Your task to perform on an android device: install app "Walmart Shopping & Grocery" Image 0: 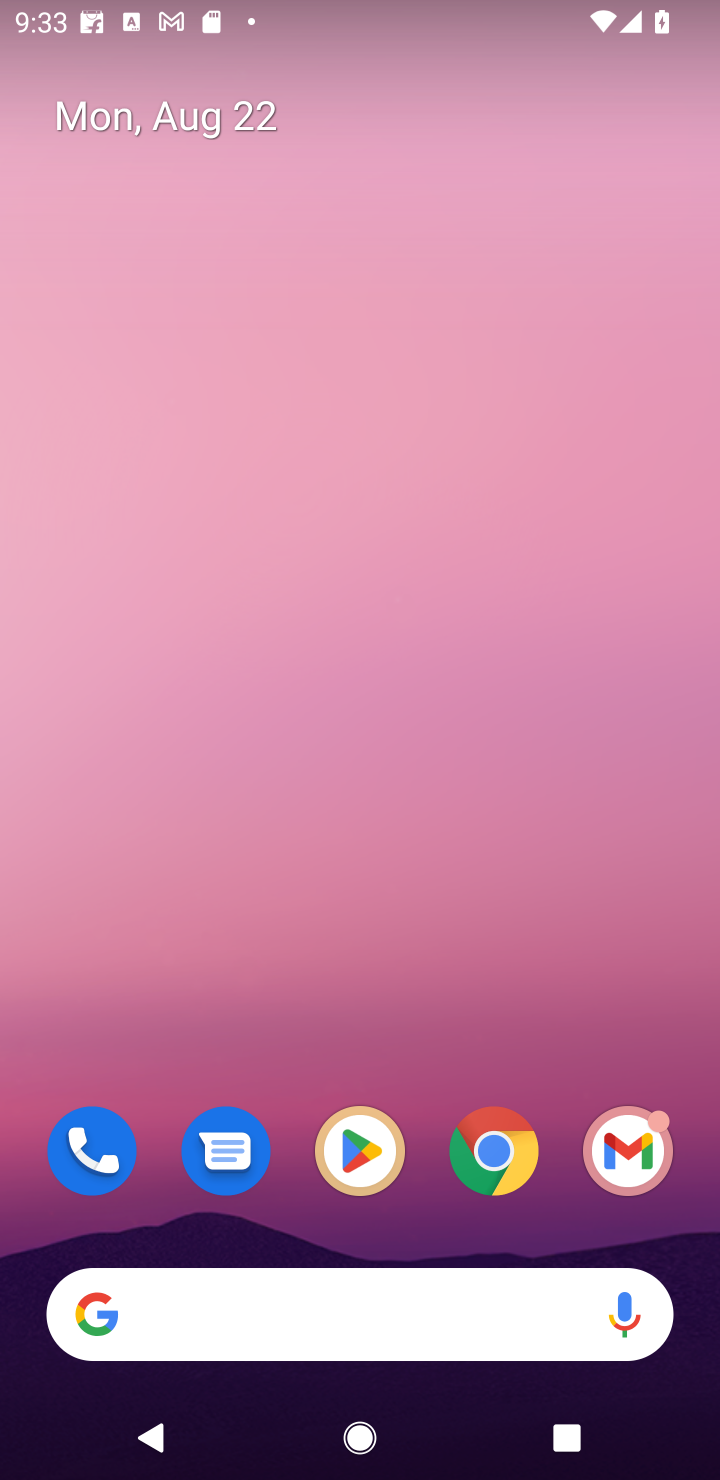
Step 0: press home button
Your task to perform on an android device: install app "Walmart Shopping & Grocery" Image 1: 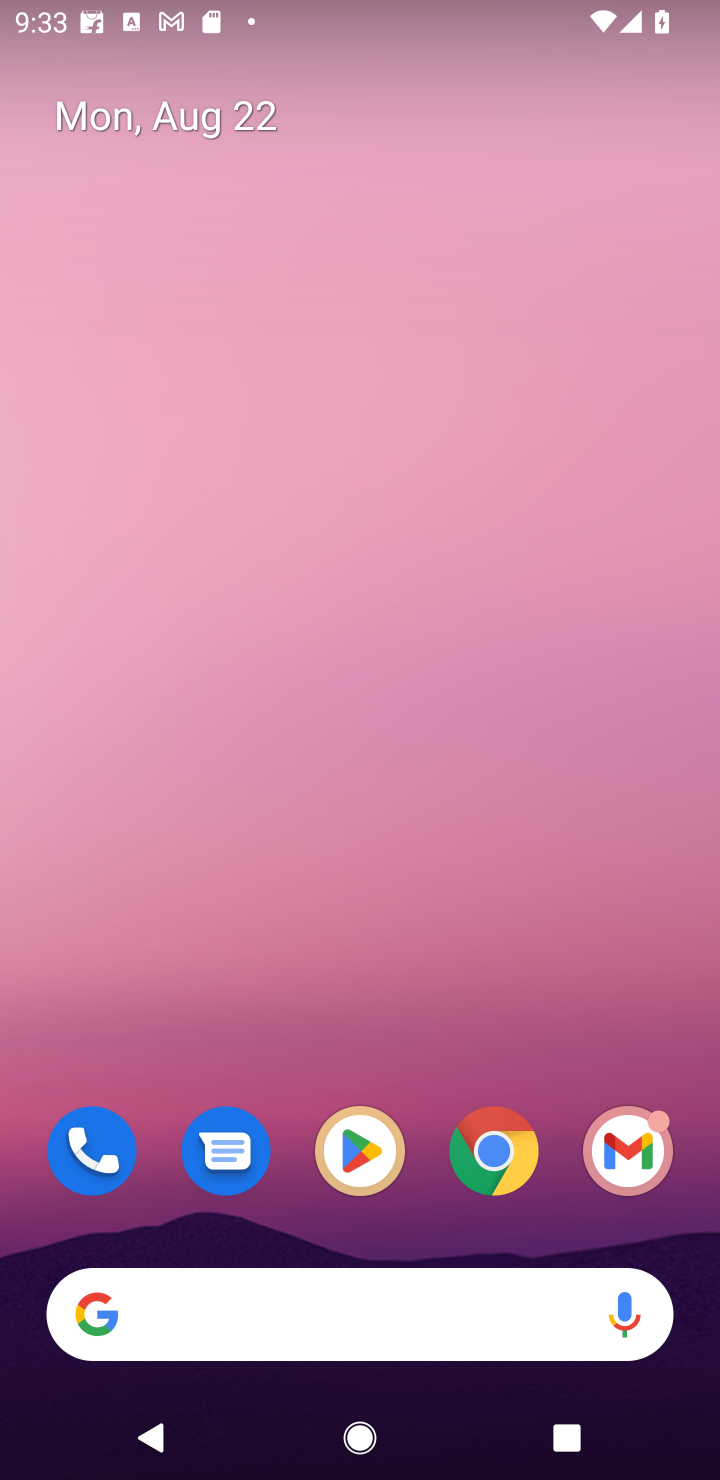
Step 1: click (350, 1160)
Your task to perform on an android device: install app "Walmart Shopping & Grocery" Image 2: 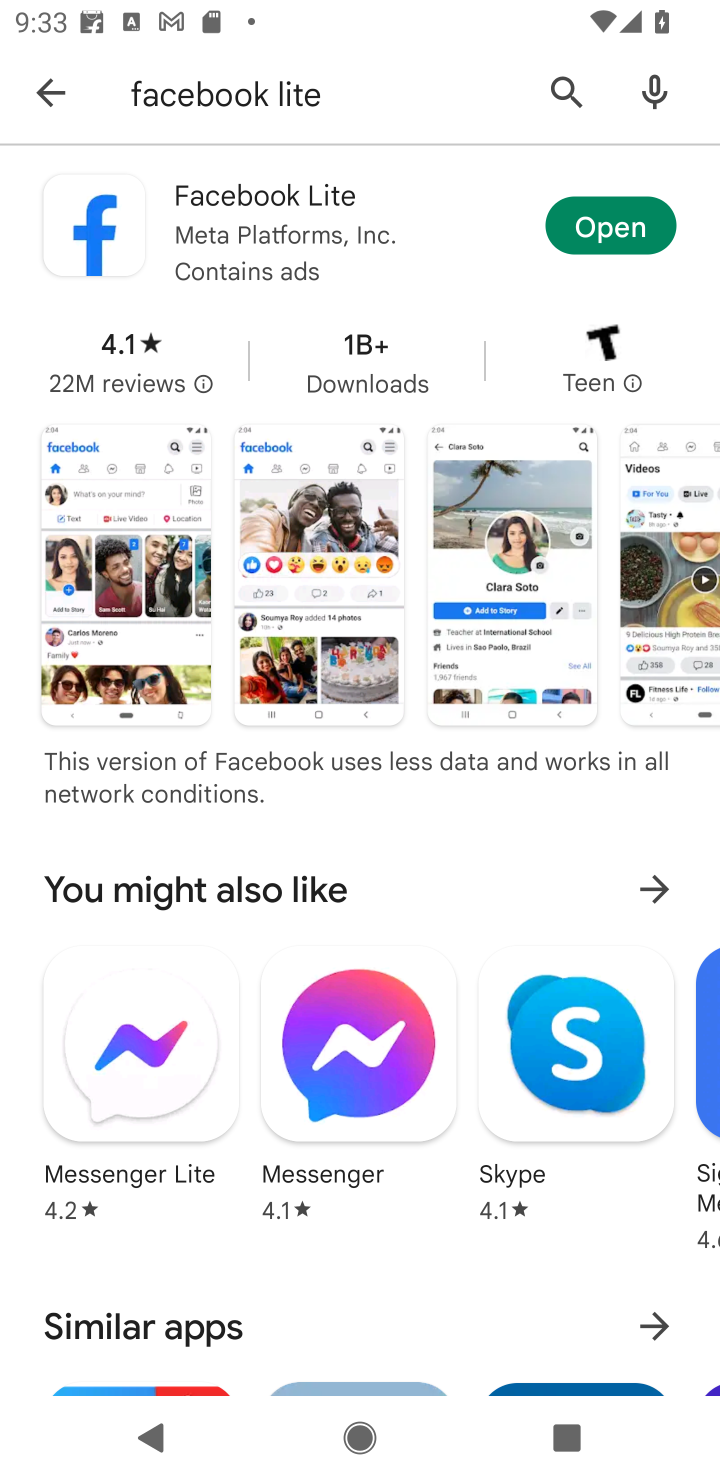
Step 2: click (558, 84)
Your task to perform on an android device: install app "Walmart Shopping & Grocery" Image 3: 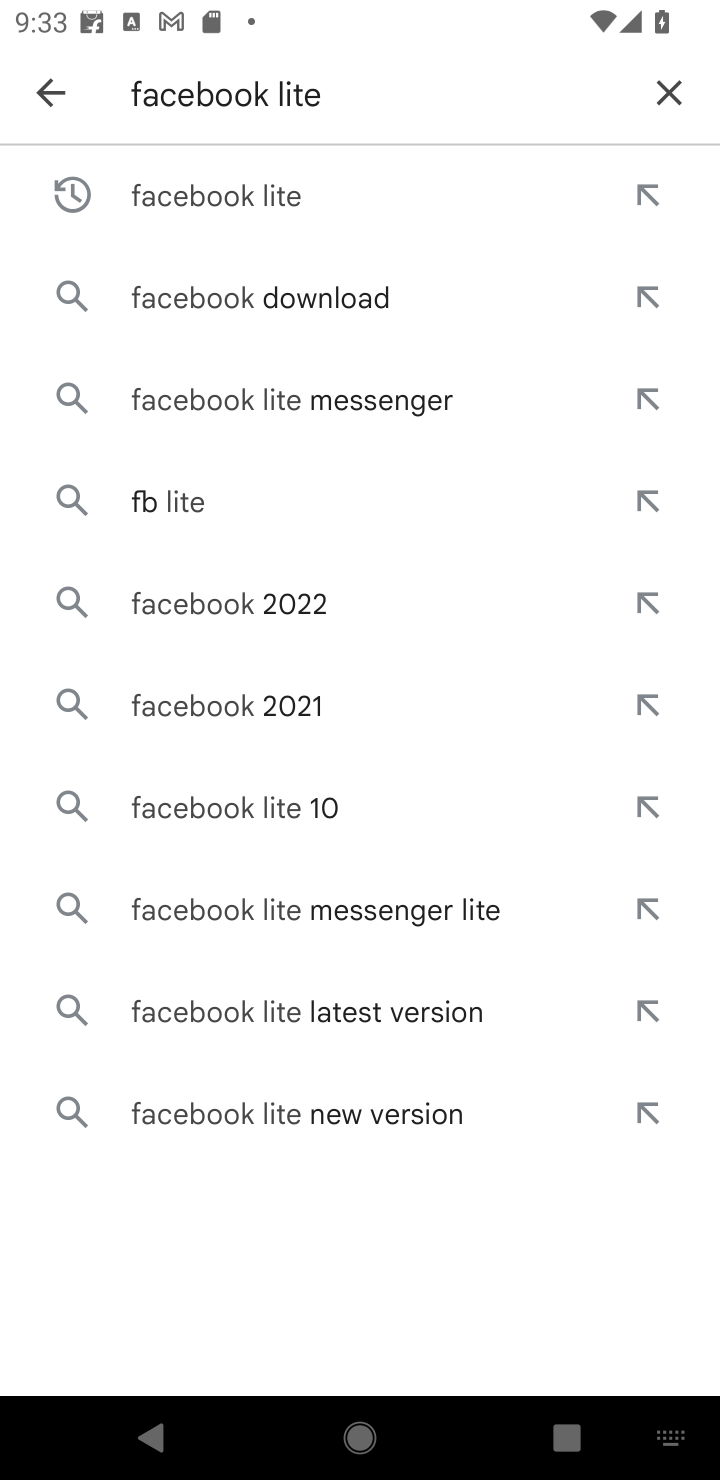
Step 3: click (667, 86)
Your task to perform on an android device: install app "Walmart Shopping & Grocery" Image 4: 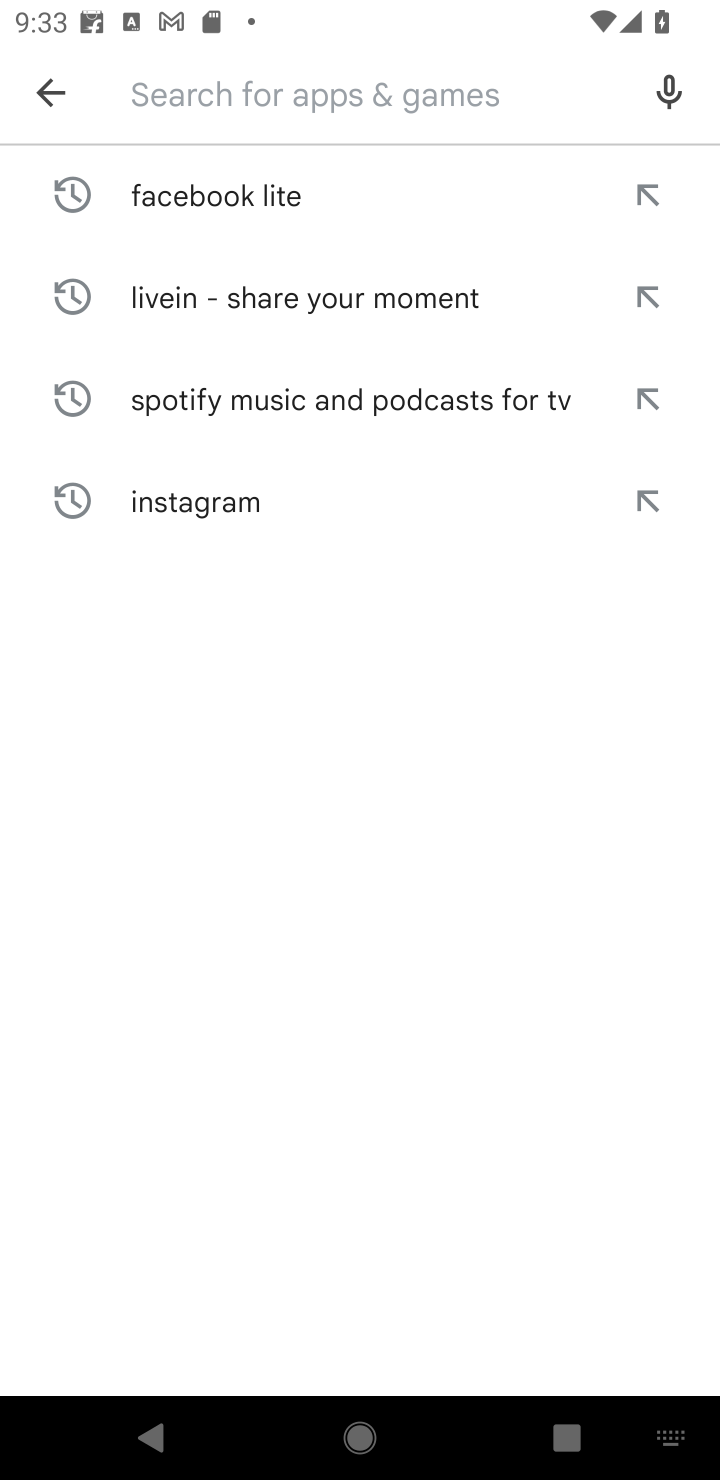
Step 4: type "Walmart Shopping & Grocery"
Your task to perform on an android device: install app "Walmart Shopping & Grocery" Image 5: 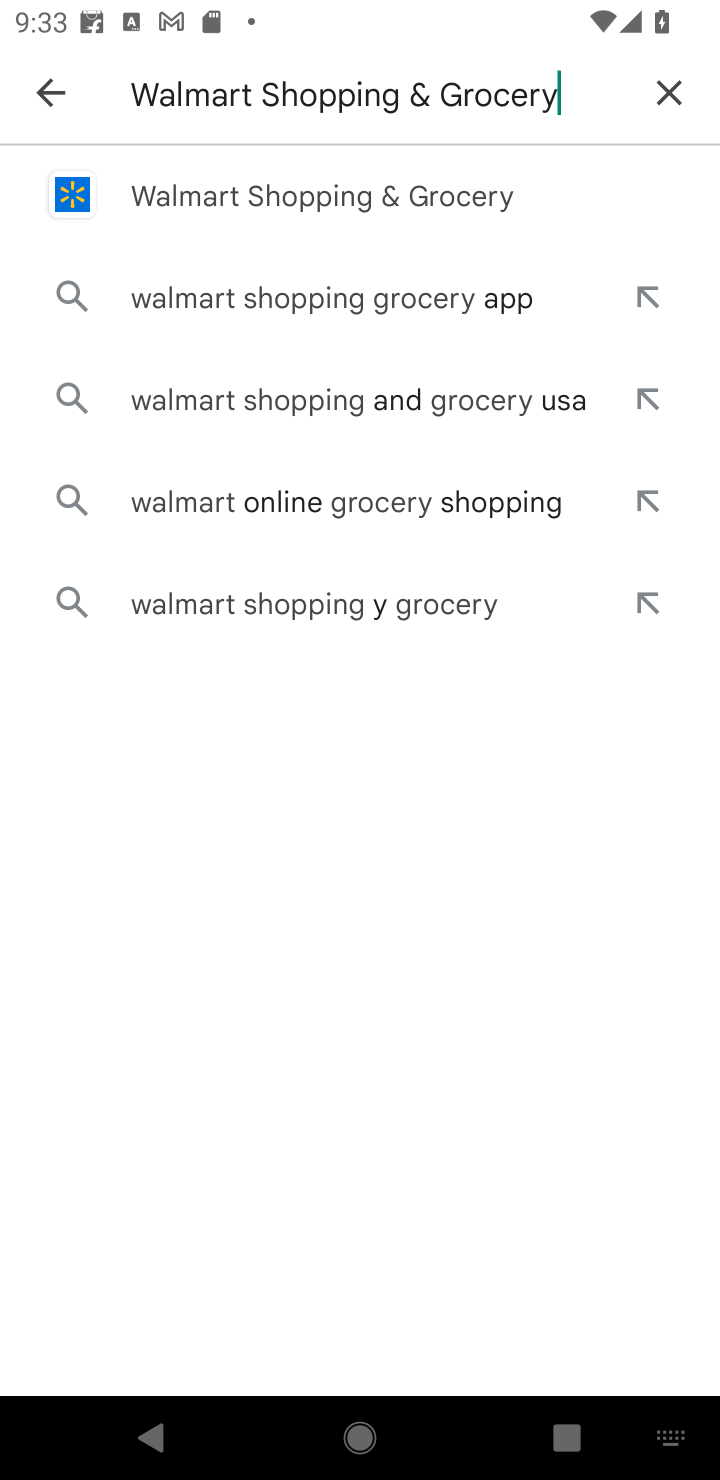
Step 5: click (285, 184)
Your task to perform on an android device: install app "Walmart Shopping & Grocery" Image 6: 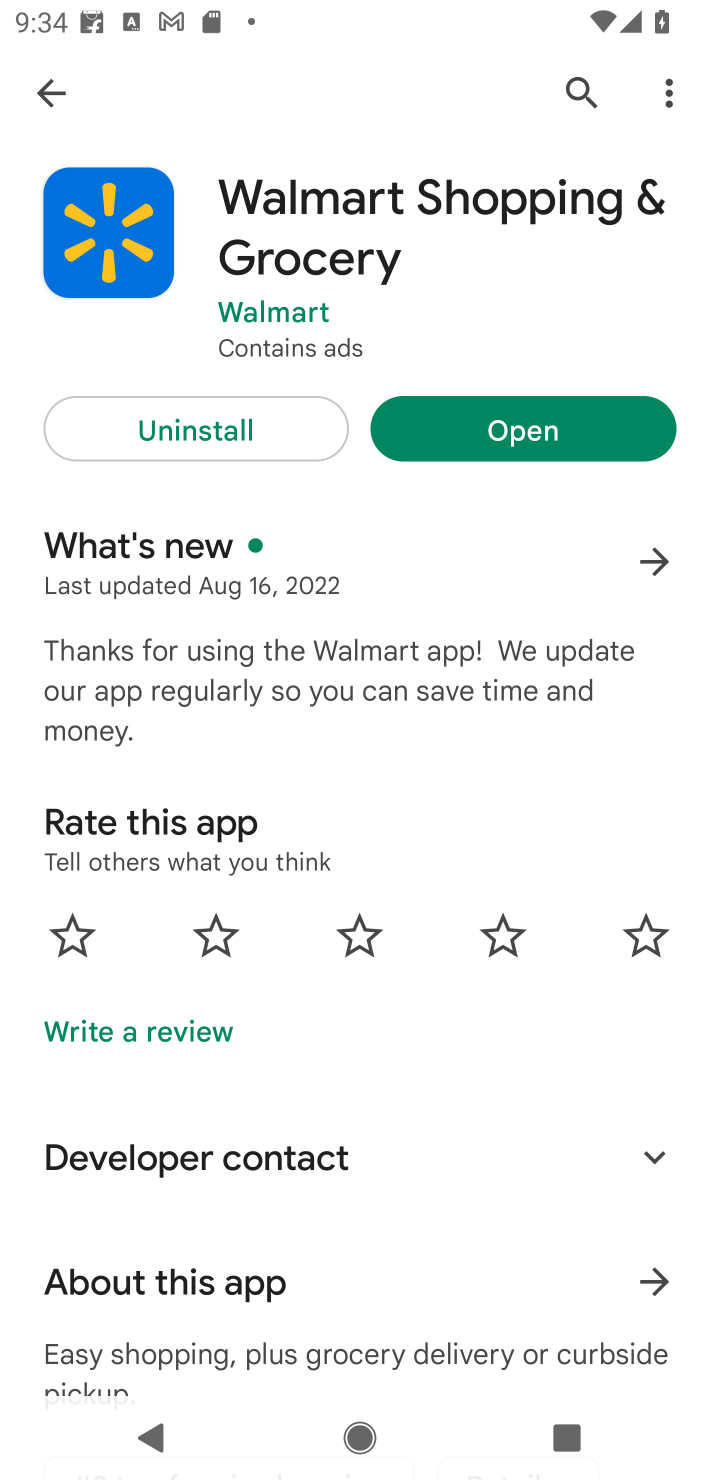
Step 6: task complete